Your task to perform on an android device: When is my next appointment? Image 0: 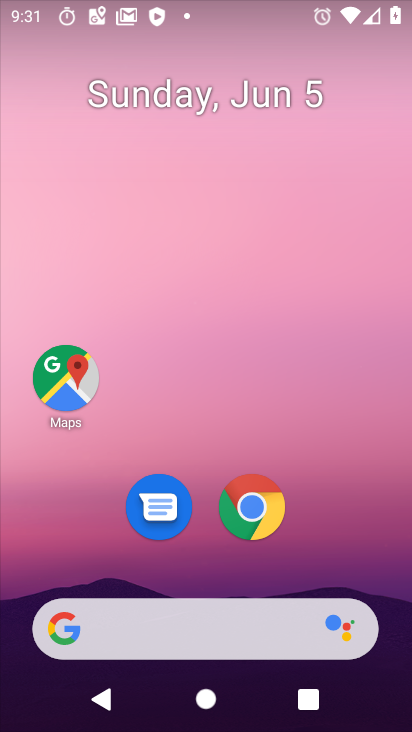
Step 0: drag from (259, 654) to (258, 236)
Your task to perform on an android device: When is my next appointment? Image 1: 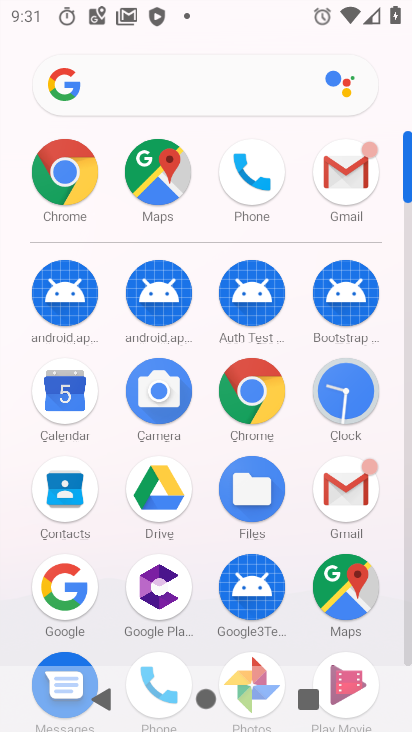
Step 1: click (72, 392)
Your task to perform on an android device: When is my next appointment? Image 2: 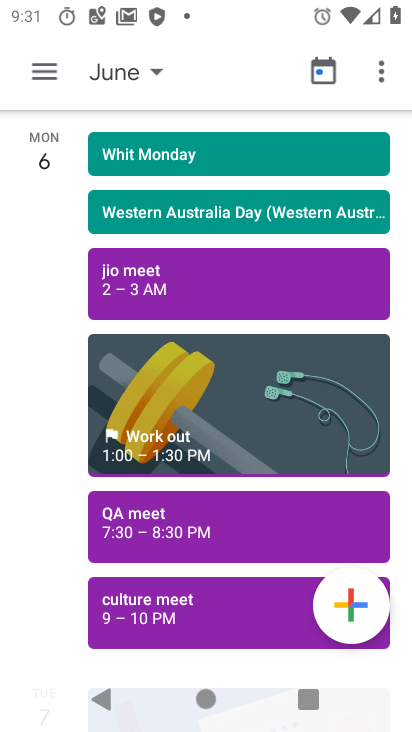
Step 2: click (34, 55)
Your task to perform on an android device: When is my next appointment? Image 3: 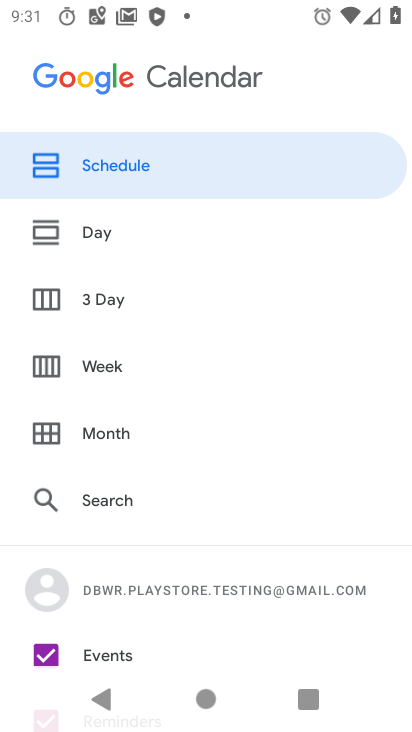
Step 3: click (126, 179)
Your task to perform on an android device: When is my next appointment? Image 4: 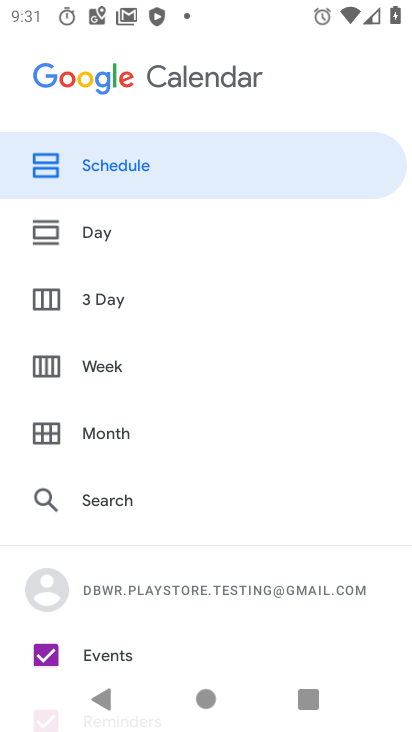
Step 4: click (125, 179)
Your task to perform on an android device: When is my next appointment? Image 5: 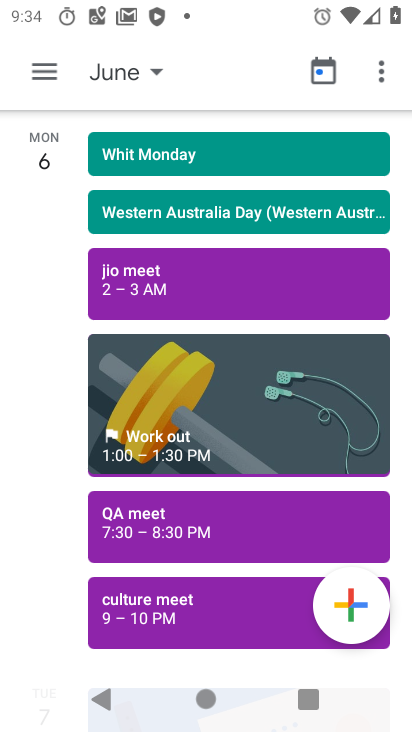
Step 5: task complete